Your task to perform on an android device: turn on javascript in the chrome app Image 0: 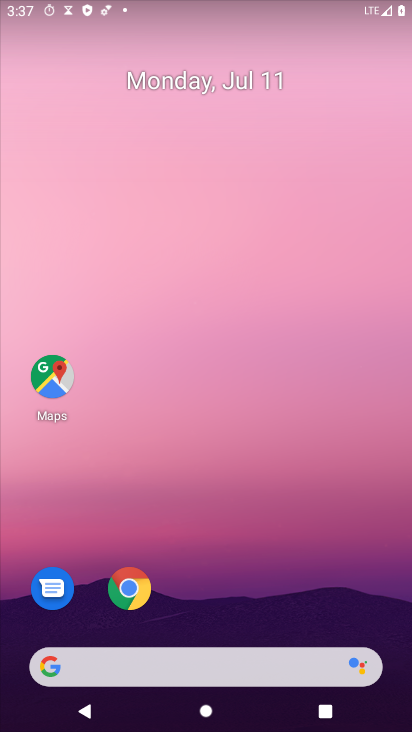
Step 0: click (132, 587)
Your task to perform on an android device: turn on javascript in the chrome app Image 1: 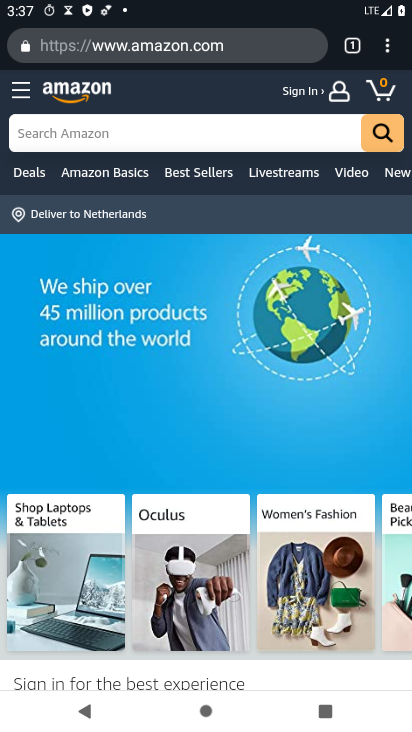
Step 1: click (390, 38)
Your task to perform on an android device: turn on javascript in the chrome app Image 2: 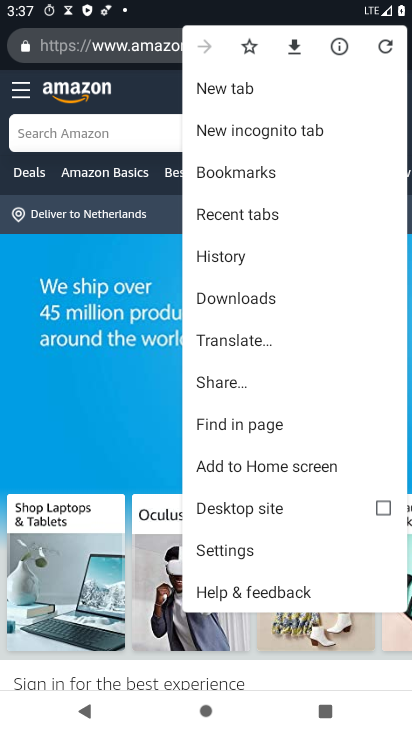
Step 2: click (221, 546)
Your task to perform on an android device: turn on javascript in the chrome app Image 3: 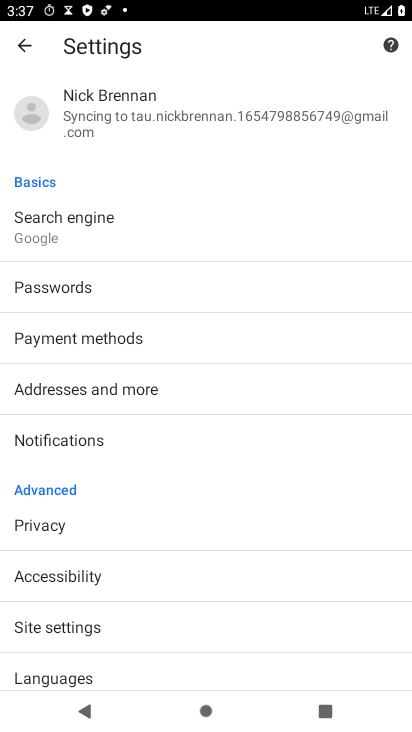
Step 3: click (71, 638)
Your task to perform on an android device: turn on javascript in the chrome app Image 4: 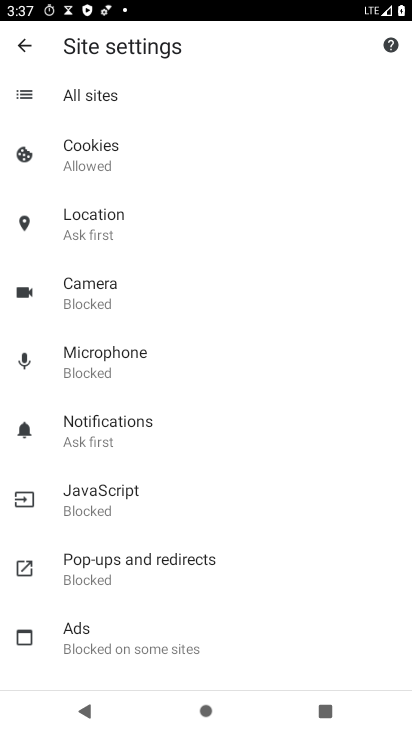
Step 4: click (111, 500)
Your task to perform on an android device: turn on javascript in the chrome app Image 5: 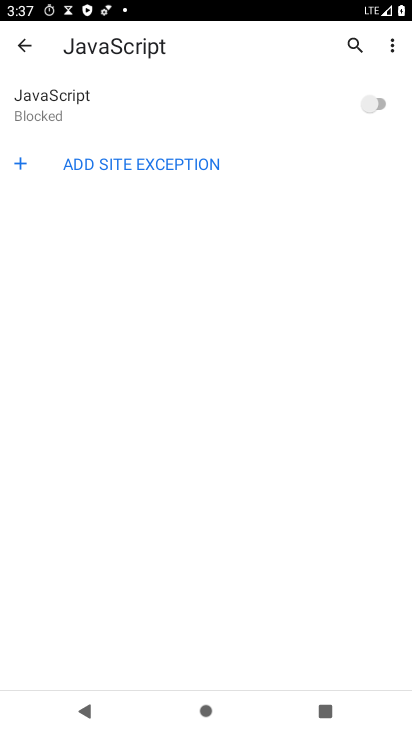
Step 5: click (378, 105)
Your task to perform on an android device: turn on javascript in the chrome app Image 6: 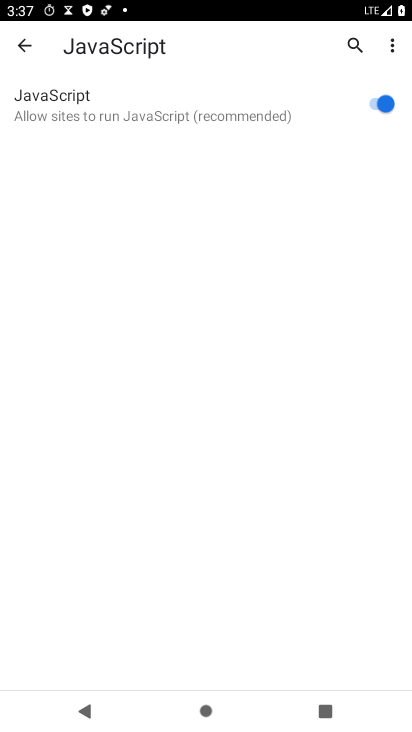
Step 6: task complete